Your task to perform on an android device: turn vacation reply on in the gmail app Image 0: 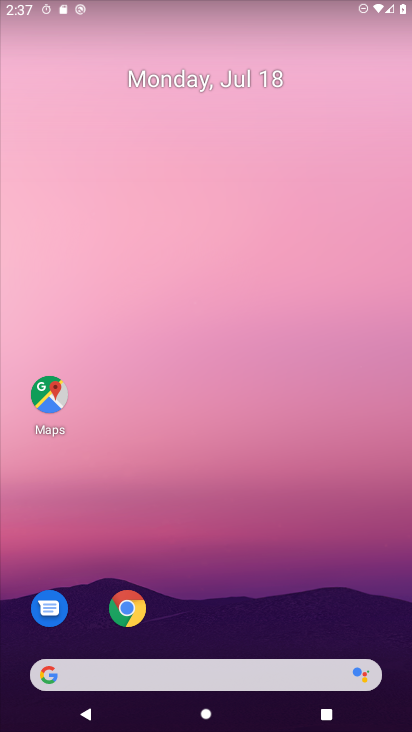
Step 0: drag from (237, 685) to (272, 110)
Your task to perform on an android device: turn vacation reply on in the gmail app Image 1: 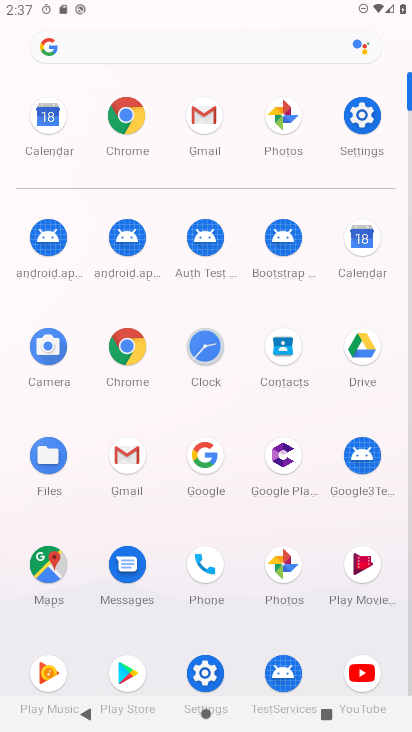
Step 1: click (132, 453)
Your task to perform on an android device: turn vacation reply on in the gmail app Image 2: 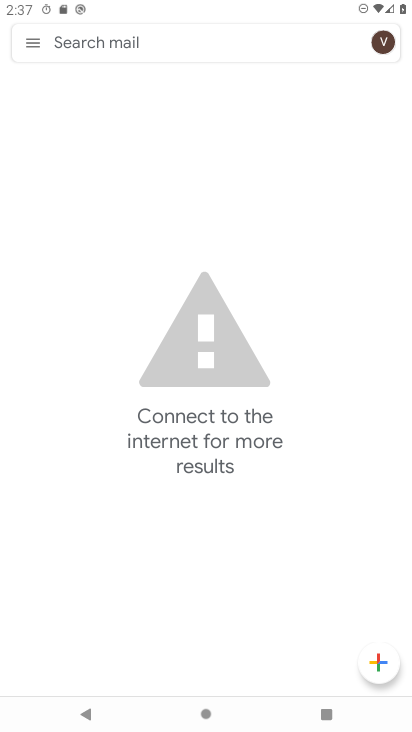
Step 2: click (33, 40)
Your task to perform on an android device: turn vacation reply on in the gmail app Image 3: 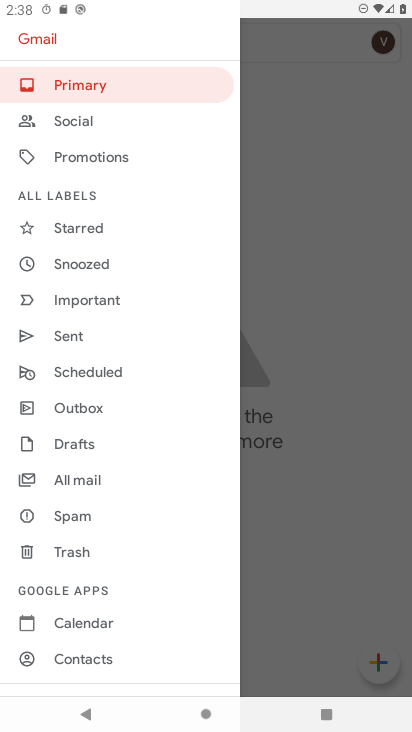
Step 3: drag from (89, 650) to (89, 303)
Your task to perform on an android device: turn vacation reply on in the gmail app Image 4: 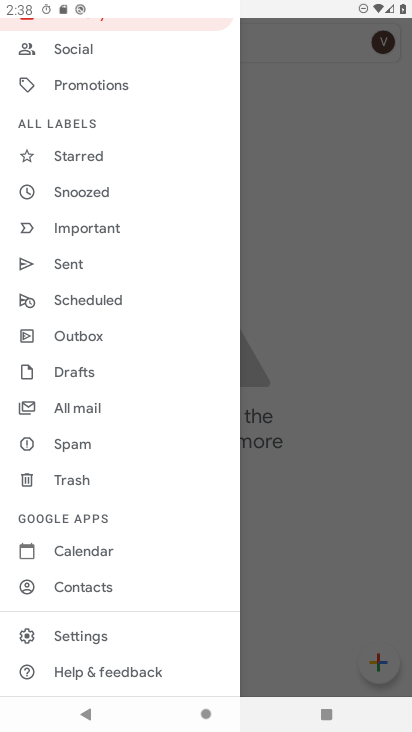
Step 4: click (84, 636)
Your task to perform on an android device: turn vacation reply on in the gmail app Image 5: 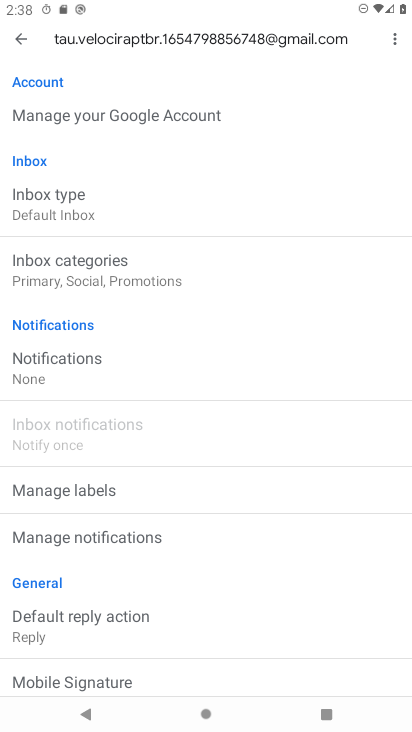
Step 5: drag from (92, 654) to (93, 366)
Your task to perform on an android device: turn vacation reply on in the gmail app Image 6: 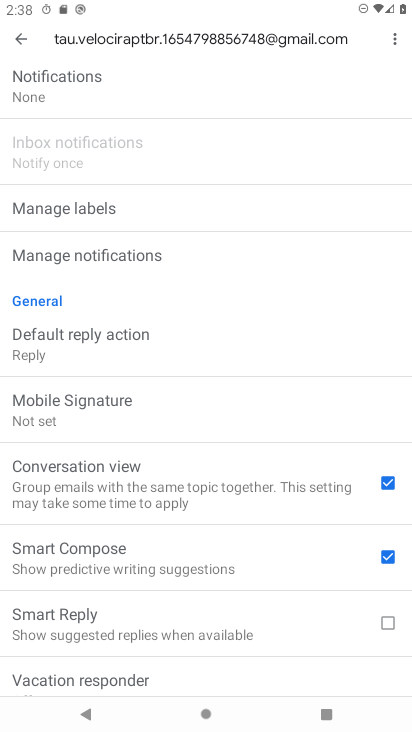
Step 6: click (202, 677)
Your task to perform on an android device: turn vacation reply on in the gmail app Image 7: 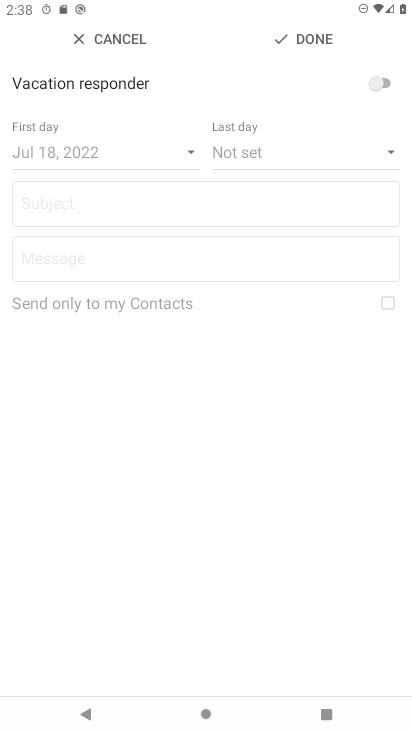
Step 7: click (381, 81)
Your task to perform on an android device: turn vacation reply on in the gmail app Image 8: 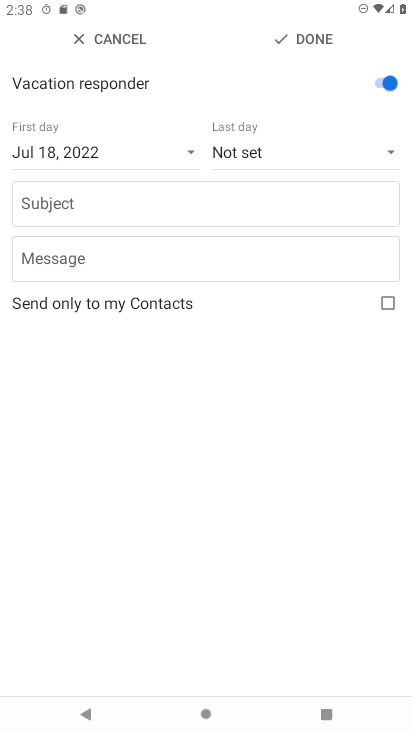
Step 8: task complete